Your task to perform on an android device: Show me the alarms in the clock app Image 0: 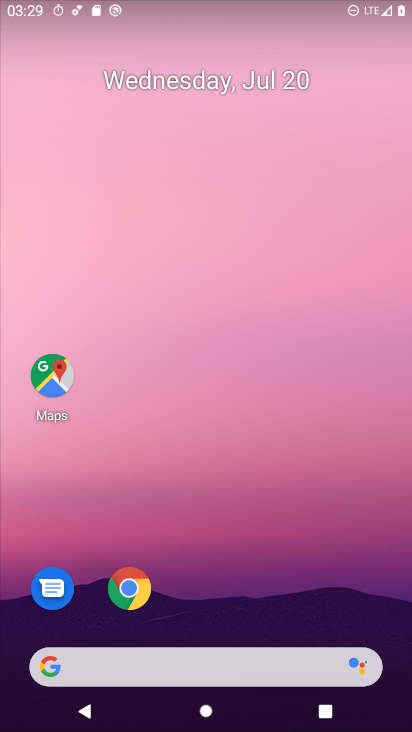
Step 0: drag from (236, 625) to (155, 89)
Your task to perform on an android device: Show me the alarms in the clock app Image 1: 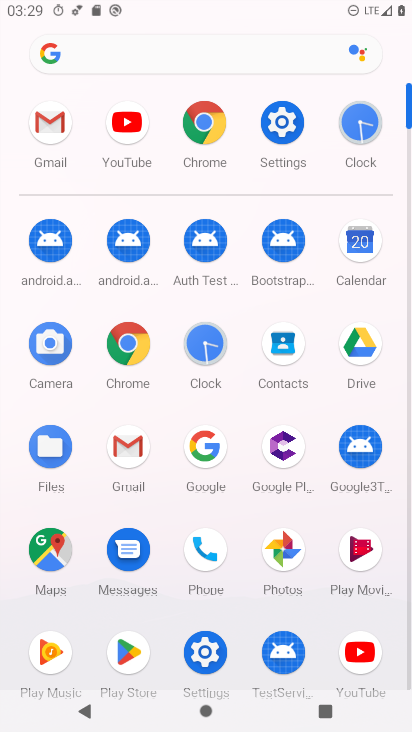
Step 1: click (195, 339)
Your task to perform on an android device: Show me the alarms in the clock app Image 2: 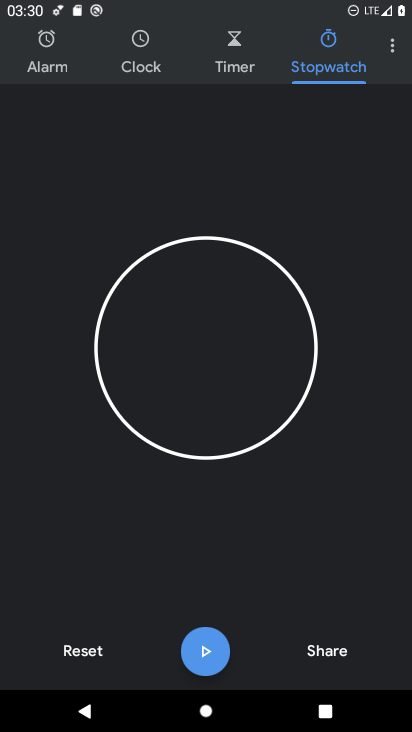
Step 2: click (389, 60)
Your task to perform on an android device: Show me the alarms in the clock app Image 3: 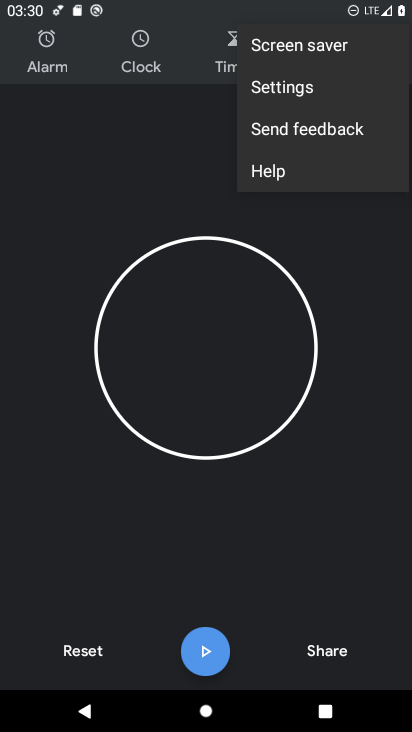
Step 3: click (108, 130)
Your task to perform on an android device: Show me the alarms in the clock app Image 4: 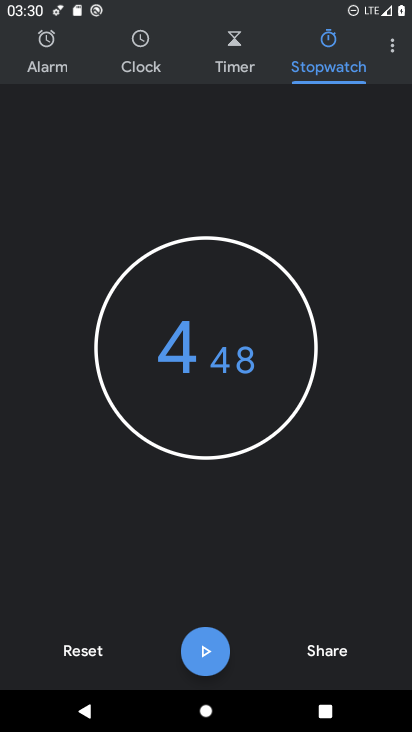
Step 4: click (58, 57)
Your task to perform on an android device: Show me the alarms in the clock app Image 5: 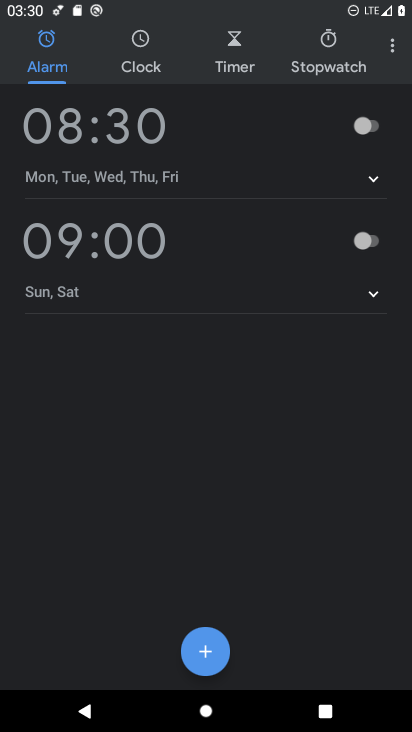
Step 5: task complete